Your task to perform on an android device: Open Google Chrome Image 0: 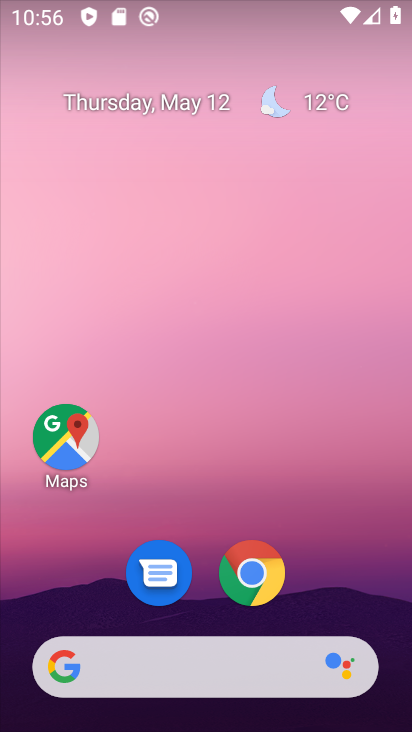
Step 0: press home button
Your task to perform on an android device: Open Google Chrome Image 1: 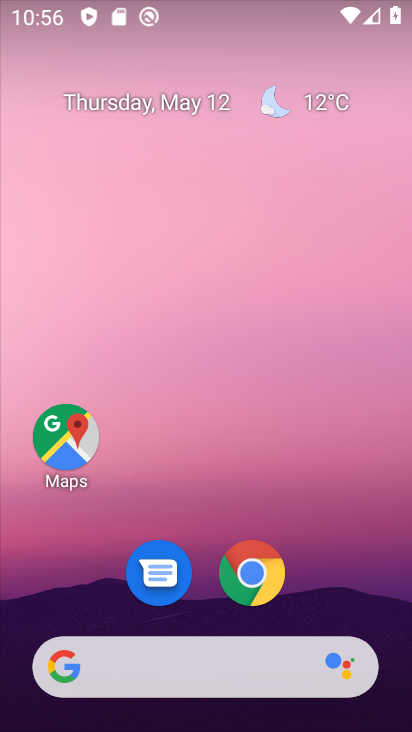
Step 1: click (257, 574)
Your task to perform on an android device: Open Google Chrome Image 2: 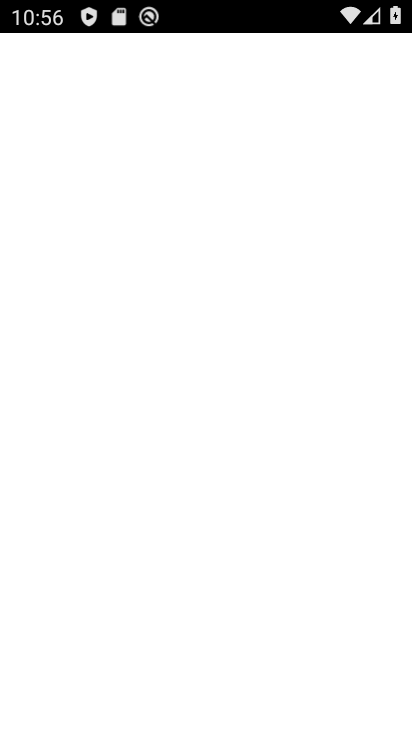
Step 2: click (257, 574)
Your task to perform on an android device: Open Google Chrome Image 3: 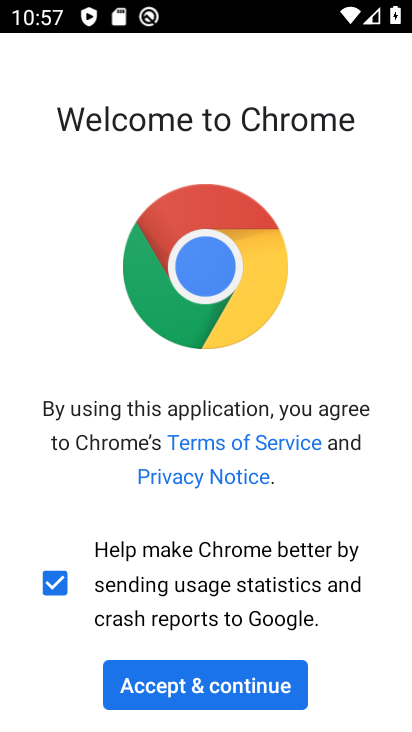
Step 3: click (173, 688)
Your task to perform on an android device: Open Google Chrome Image 4: 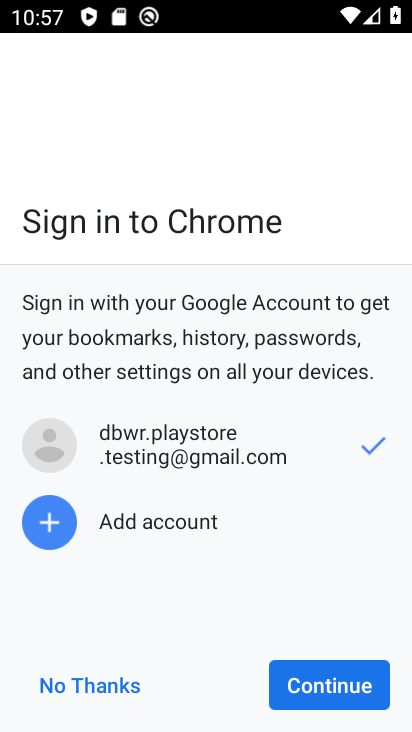
Step 4: click (320, 693)
Your task to perform on an android device: Open Google Chrome Image 5: 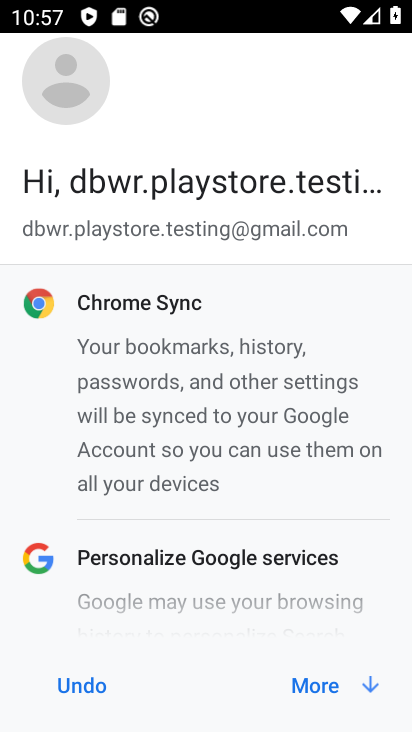
Step 5: click (320, 693)
Your task to perform on an android device: Open Google Chrome Image 6: 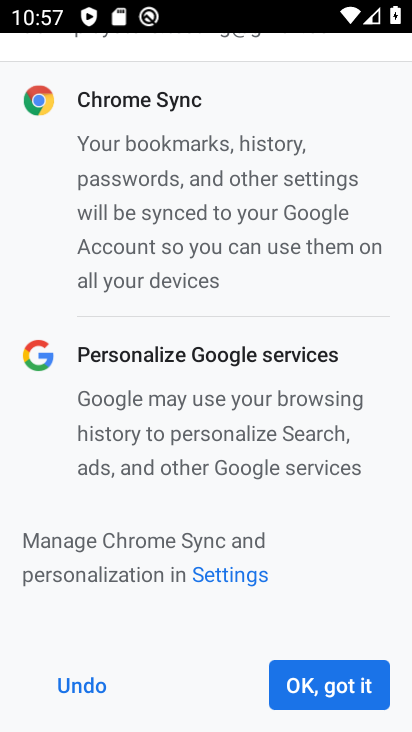
Step 6: click (320, 693)
Your task to perform on an android device: Open Google Chrome Image 7: 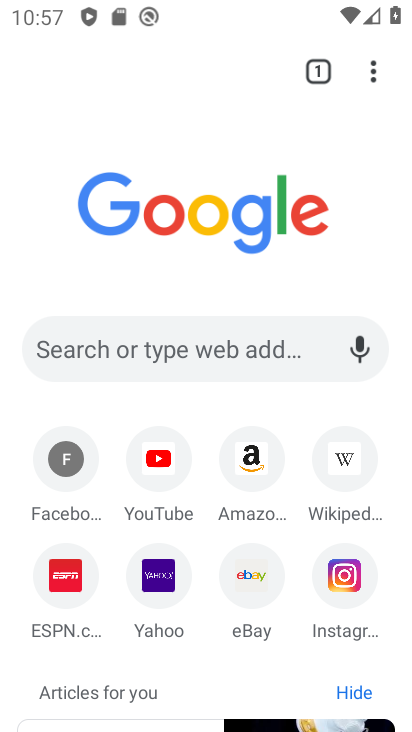
Step 7: task complete